Your task to perform on an android device: Go to privacy settings Image 0: 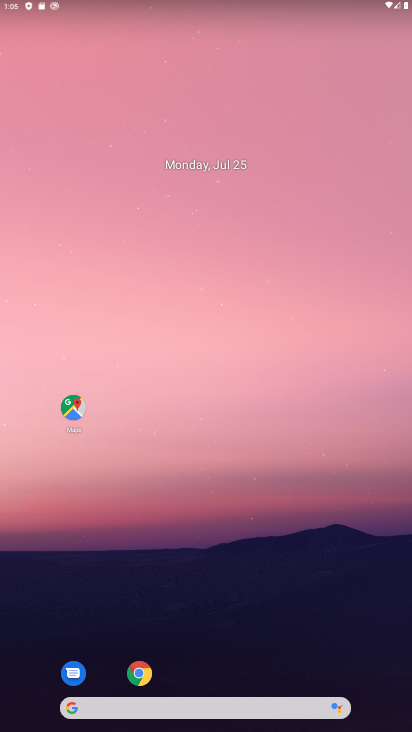
Step 0: drag from (382, 663) to (346, 147)
Your task to perform on an android device: Go to privacy settings Image 1: 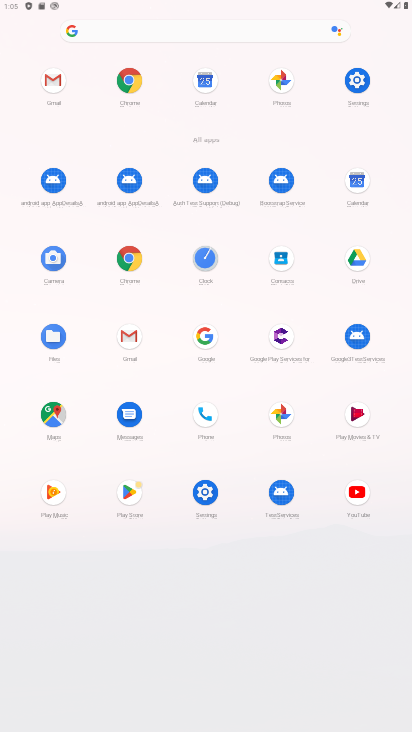
Step 1: click (204, 491)
Your task to perform on an android device: Go to privacy settings Image 2: 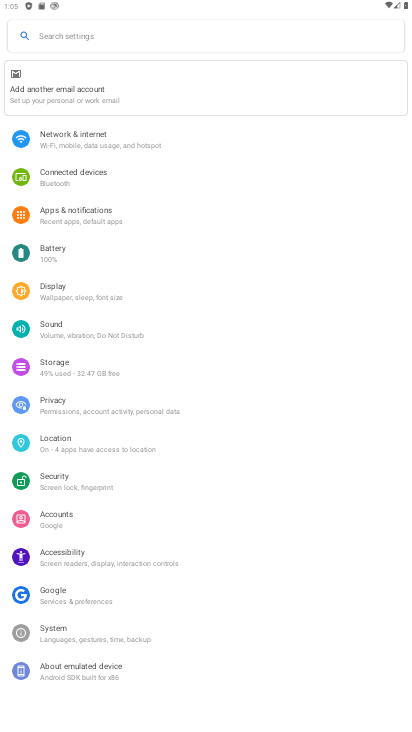
Step 2: click (50, 402)
Your task to perform on an android device: Go to privacy settings Image 3: 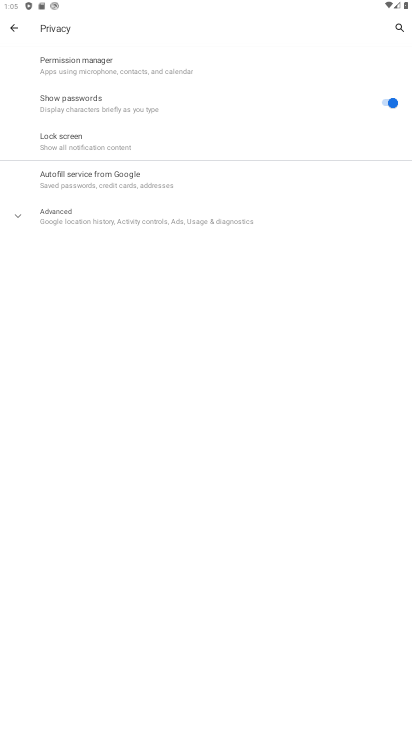
Step 3: click (18, 213)
Your task to perform on an android device: Go to privacy settings Image 4: 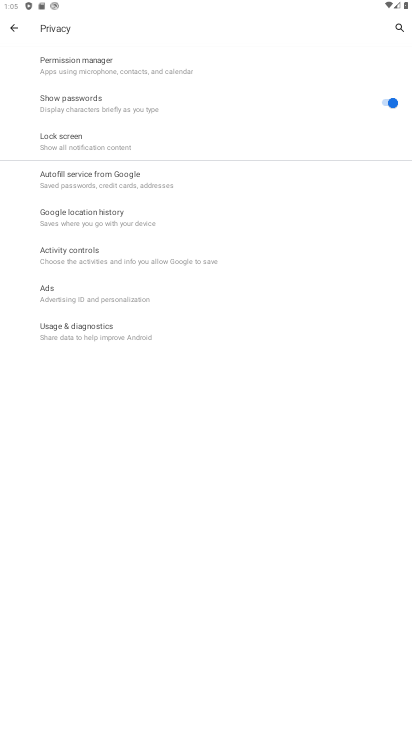
Step 4: task complete